Your task to perform on an android device: toggle sleep mode Image 0: 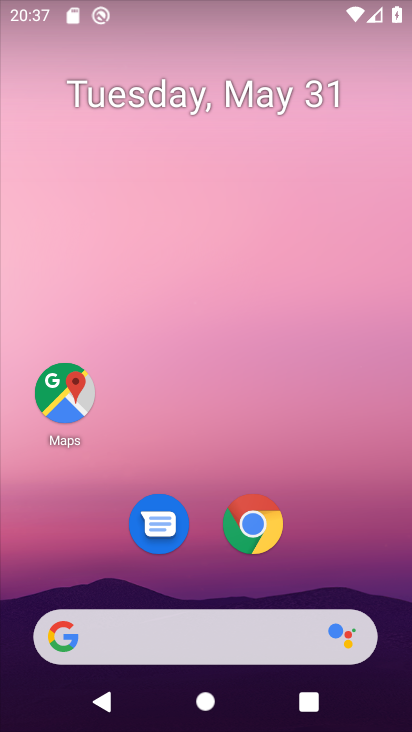
Step 0: drag from (329, 529) to (260, 1)
Your task to perform on an android device: toggle sleep mode Image 1: 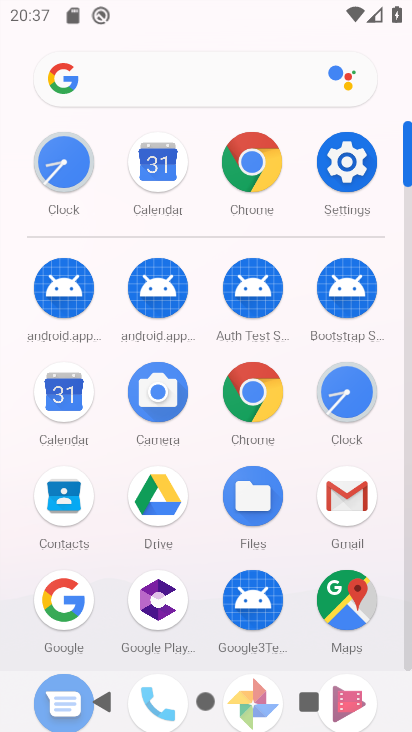
Step 1: click (333, 161)
Your task to perform on an android device: toggle sleep mode Image 2: 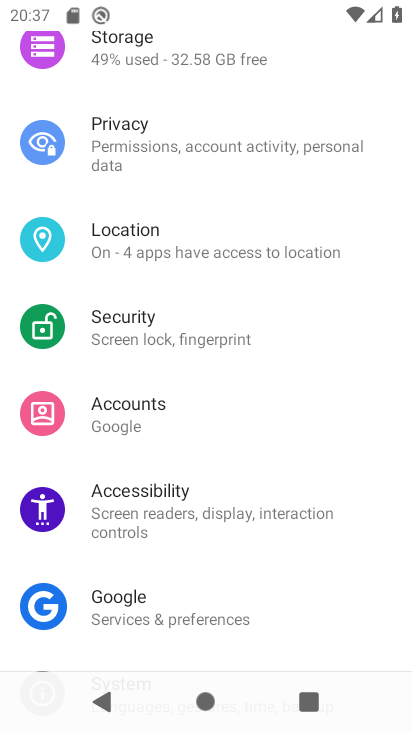
Step 2: drag from (269, 208) to (213, 653)
Your task to perform on an android device: toggle sleep mode Image 3: 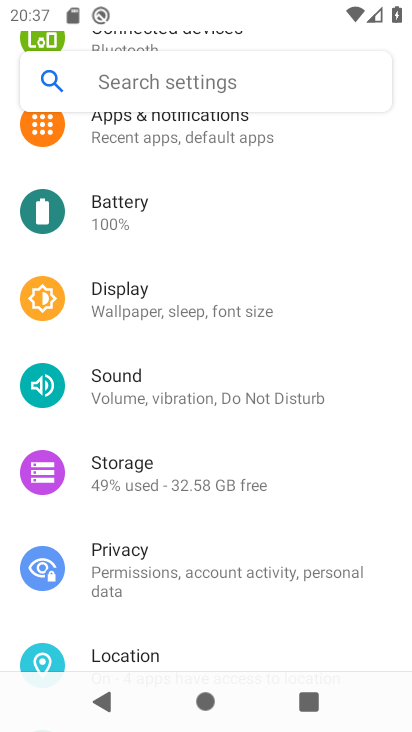
Step 3: click (218, 304)
Your task to perform on an android device: toggle sleep mode Image 4: 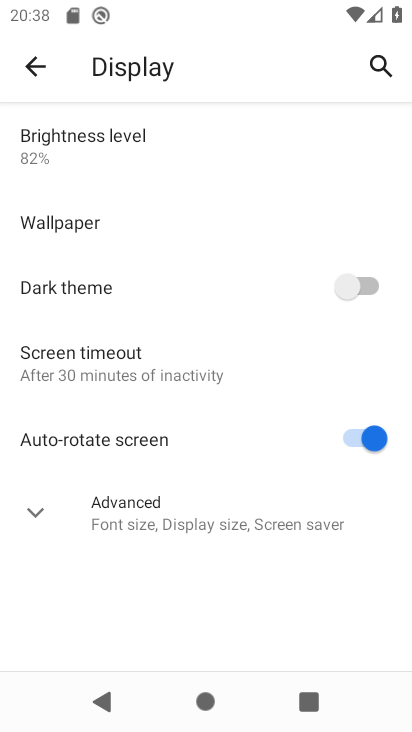
Step 4: click (37, 506)
Your task to perform on an android device: toggle sleep mode Image 5: 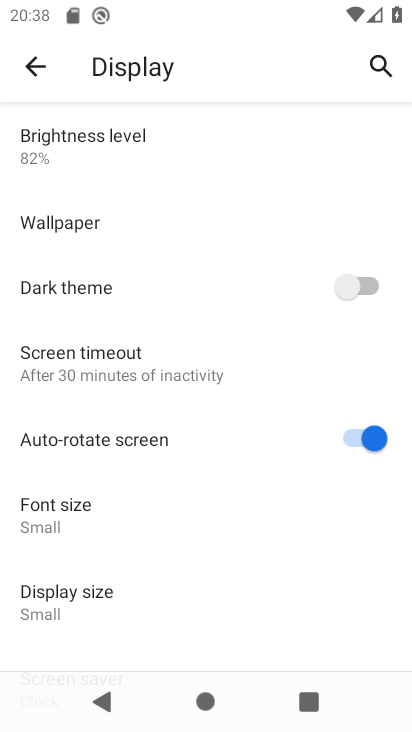
Step 5: task complete